Your task to perform on an android device: Open the web browser Image 0: 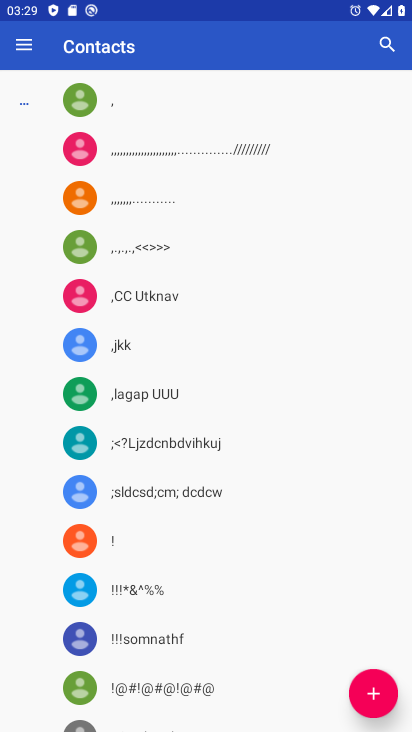
Step 0: press home button
Your task to perform on an android device: Open the web browser Image 1: 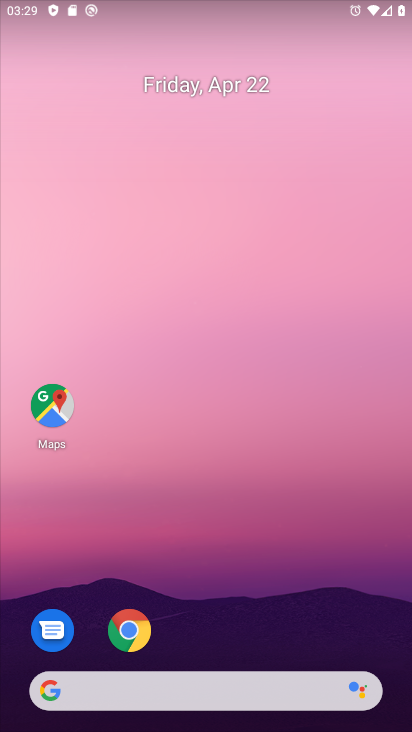
Step 1: click (123, 638)
Your task to perform on an android device: Open the web browser Image 2: 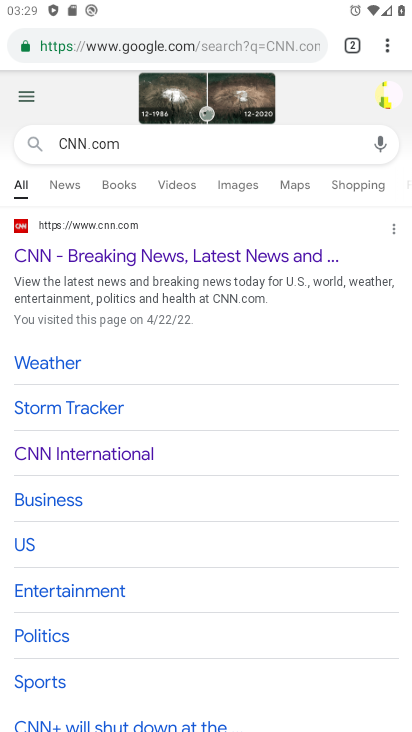
Step 2: task complete